Your task to perform on an android device: Open CNN.com Image 0: 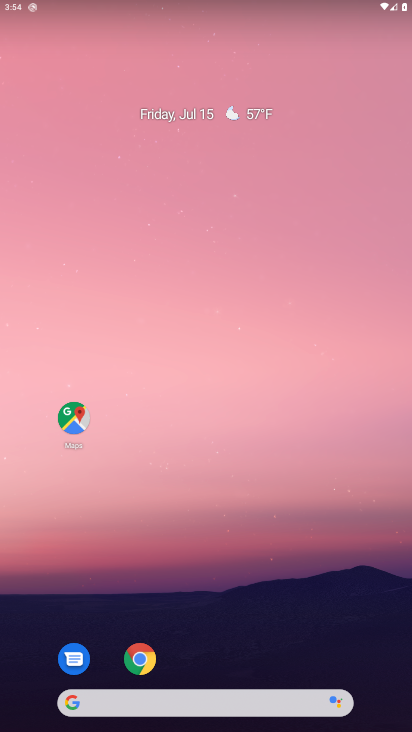
Step 0: click (128, 704)
Your task to perform on an android device: Open CNN.com Image 1: 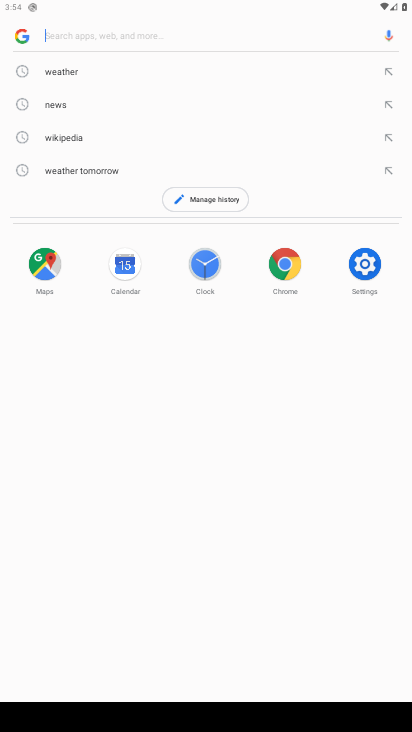
Step 1: click (56, 32)
Your task to perform on an android device: Open CNN.com Image 2: 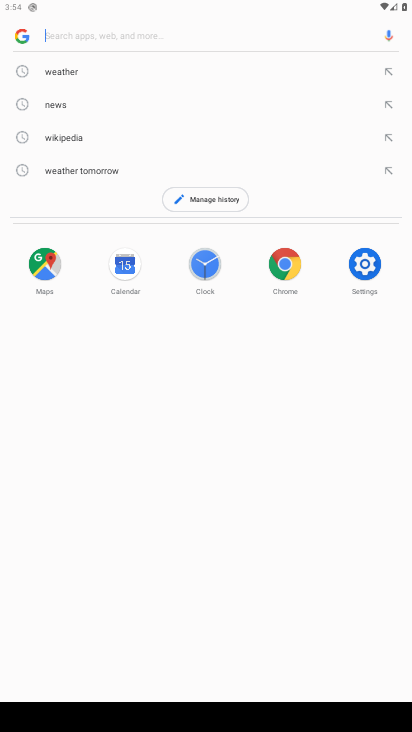
Step 2: type "CNN.com"
Your task to perform on an android device: Open CNN.com Image 3: 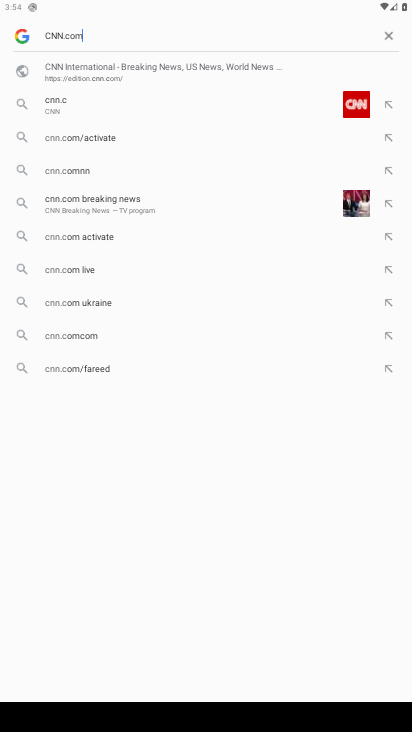
Step 3: type ""
Your task to perform on an android device: Open CNN.com Image 4: 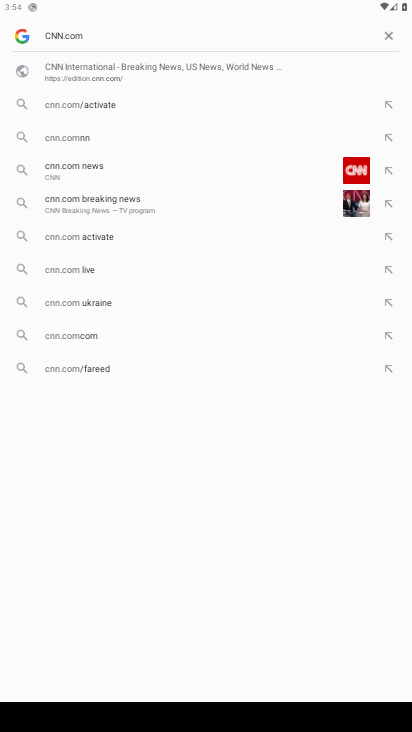
Step 4: type ""
Your task to perform on an android device: Open CNN.com Image 5: 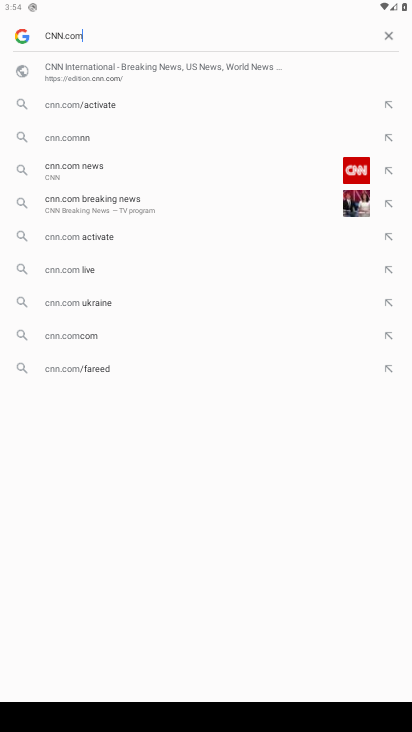
Step 5: type ""
Your task to perform on an android device: Open CNN.com Image 6: 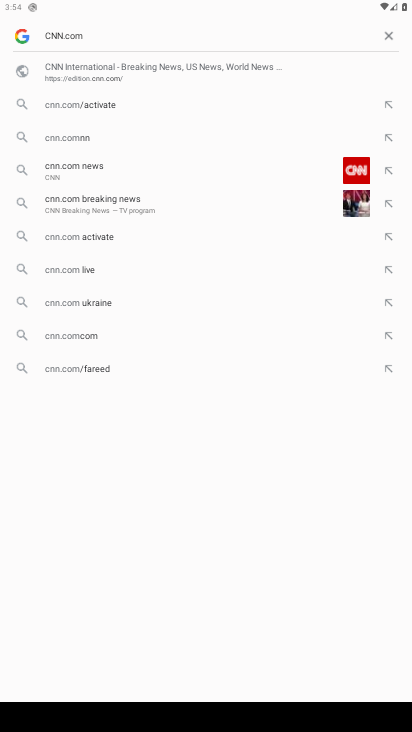
Step 6: task complete